Your task to perform on an android device: Open calendar and show me the second week of next month Image 0: 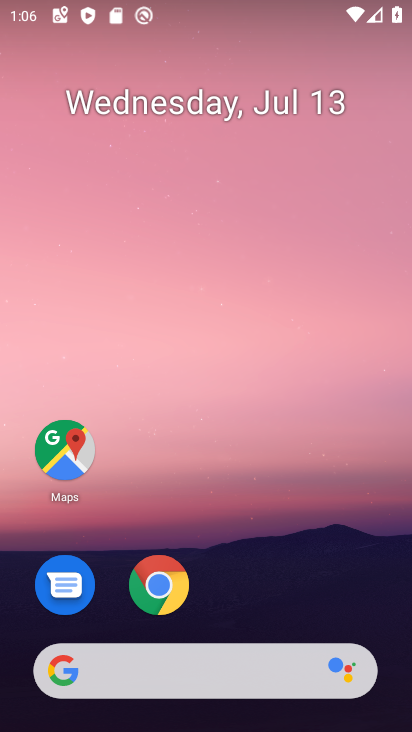
Step 0: drag from (191, 619) to (351, 166)
Your task to perform on an android device: Open calendar and show me the second week of next month Image 1: 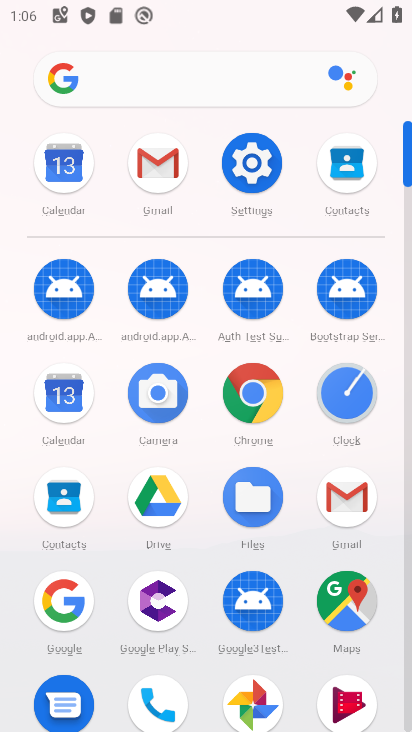
Step 1: click (70, 406)
Your task to perform on an android device: Open calendar and show me the second week of next month Image 2: 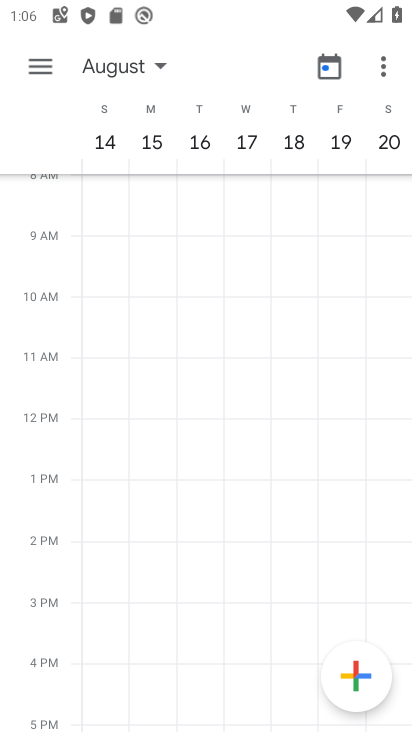
Step 2: click (118, 66)
Your task to perform on an android device: Open calendar and show me the second week of next month Image 3: 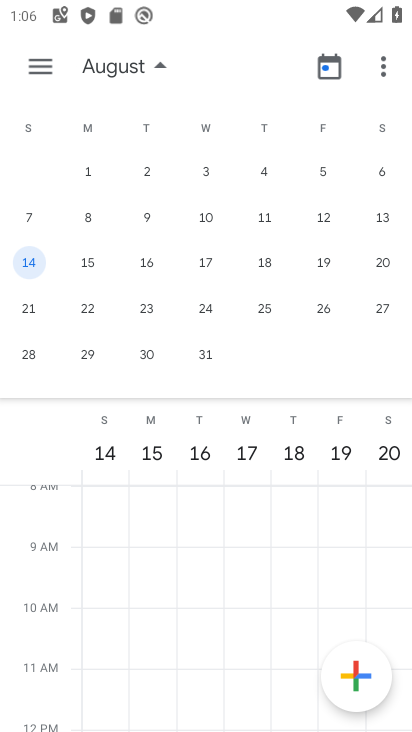
Step 3: click (27, 211)
Your task to perform on an android device: Open calendar and show me the second week of next month Image 4: 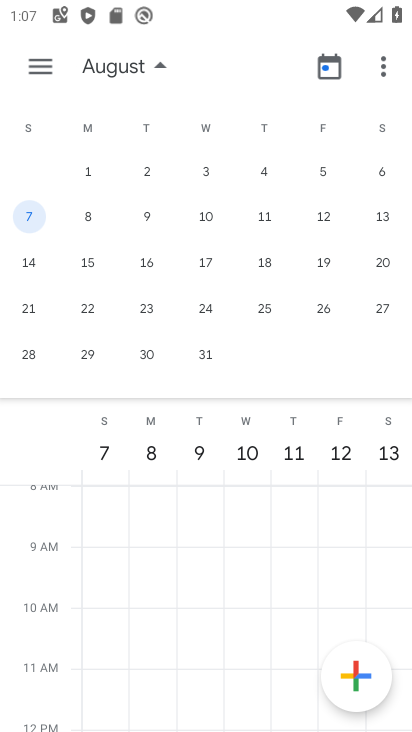
Step 4: click (43, 75)
Your task to perform on an android device: Open calendar and show me the second week of next month Image 5: 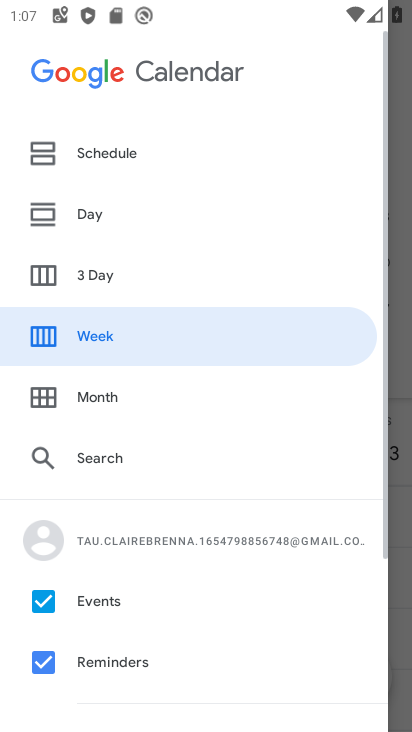
Step 5: click (123, 318)
Your task to perform on an android device: Open calendar and show me the second week of next month Image 6: 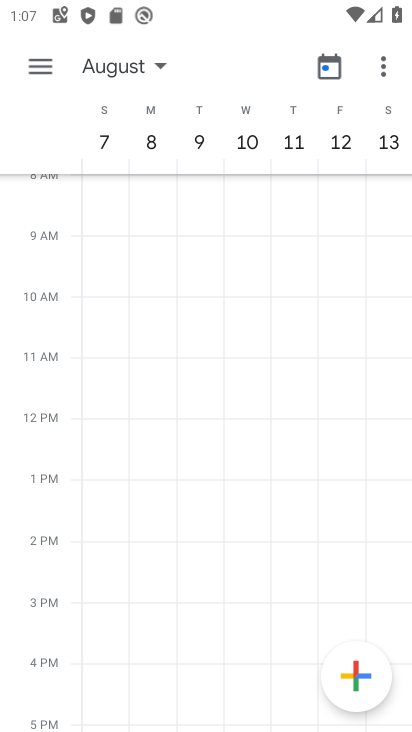
Step 6: task complete